Your task to perform on an android device: Open display settings Image 0: 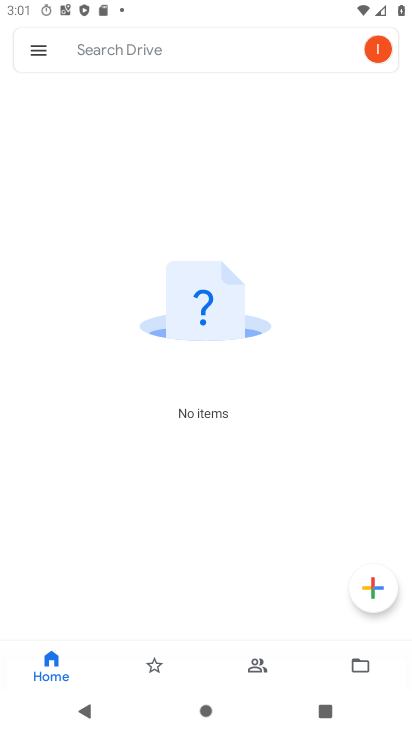
Step 0: press home button
Your task to perform on an android device: Open display settings Image 1: 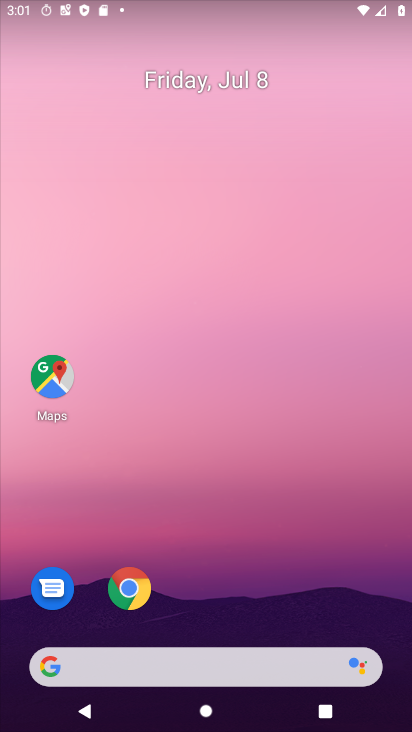
Step 1: drag from (216, 627) to (225, 74)
Your task to perform on an android device: Open display settings Image 2: 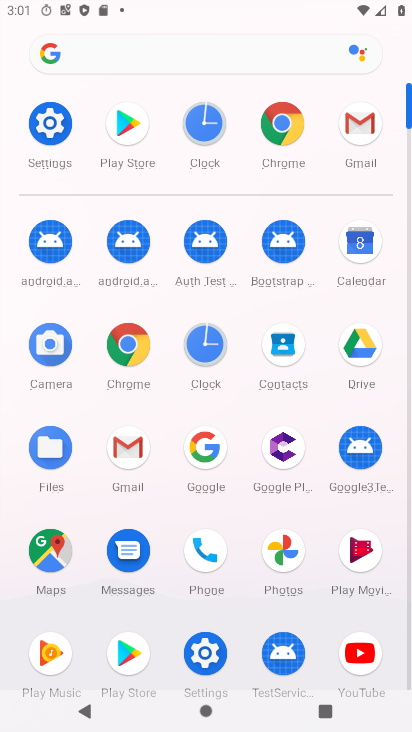
Step 2: click (42, 133)
Your task to perform on an android device: Open display settings Image 3: 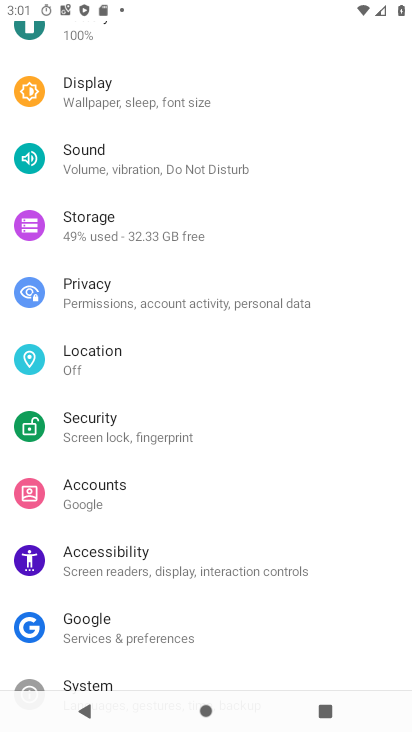
Step 3: click (88, 99)
Your task to perform on an android device: Open display settings Image 4: 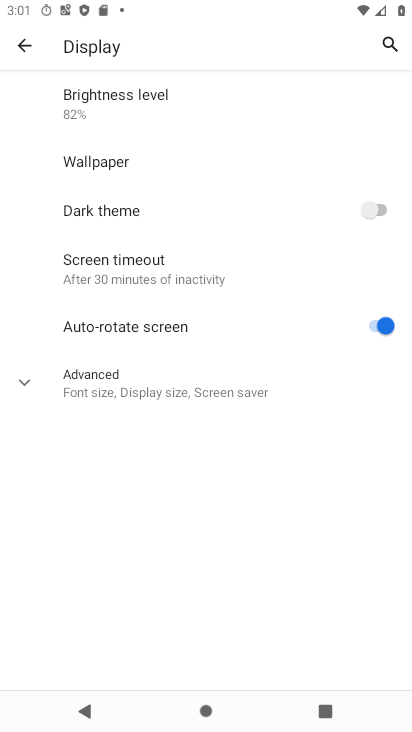
Step 4: task complete